Your task to perform on an android device: What's the time? Image 0: 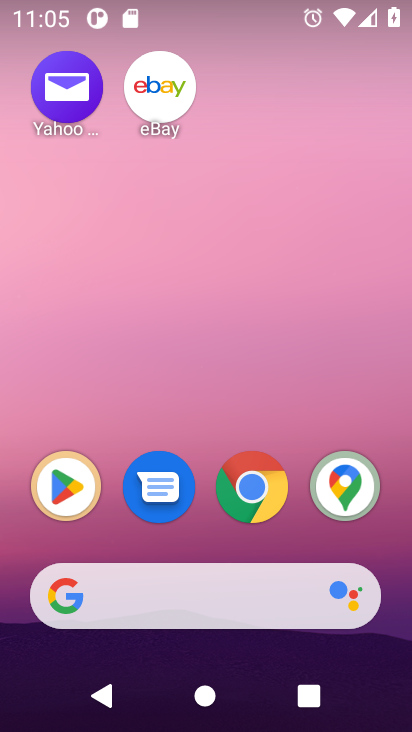
Step 0: drag from (207, 555) to (202, 48)
Your task to perform on an android device: What's the time? Image 1: 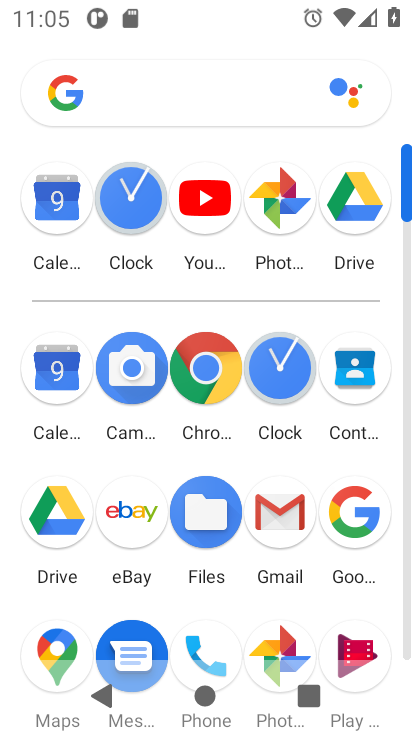
Step 1: click (277, 376)
Your task to perform on an android device: What's the time? Image 2: 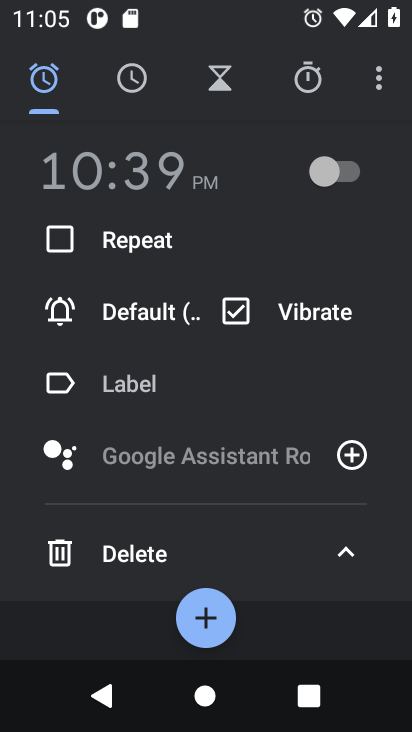
Step 2: click (126, 83)
Your task to perform on an android device: What's the time? Image 3: 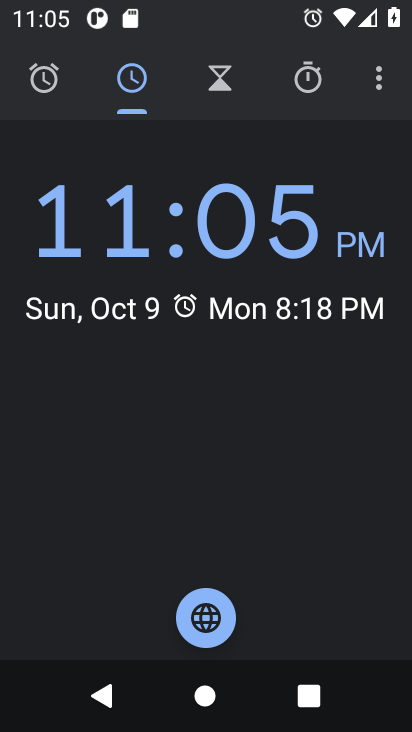
Step 3: task complete